Your task to perform on an android device: delete the emails in spam in the gmail app Image 0: 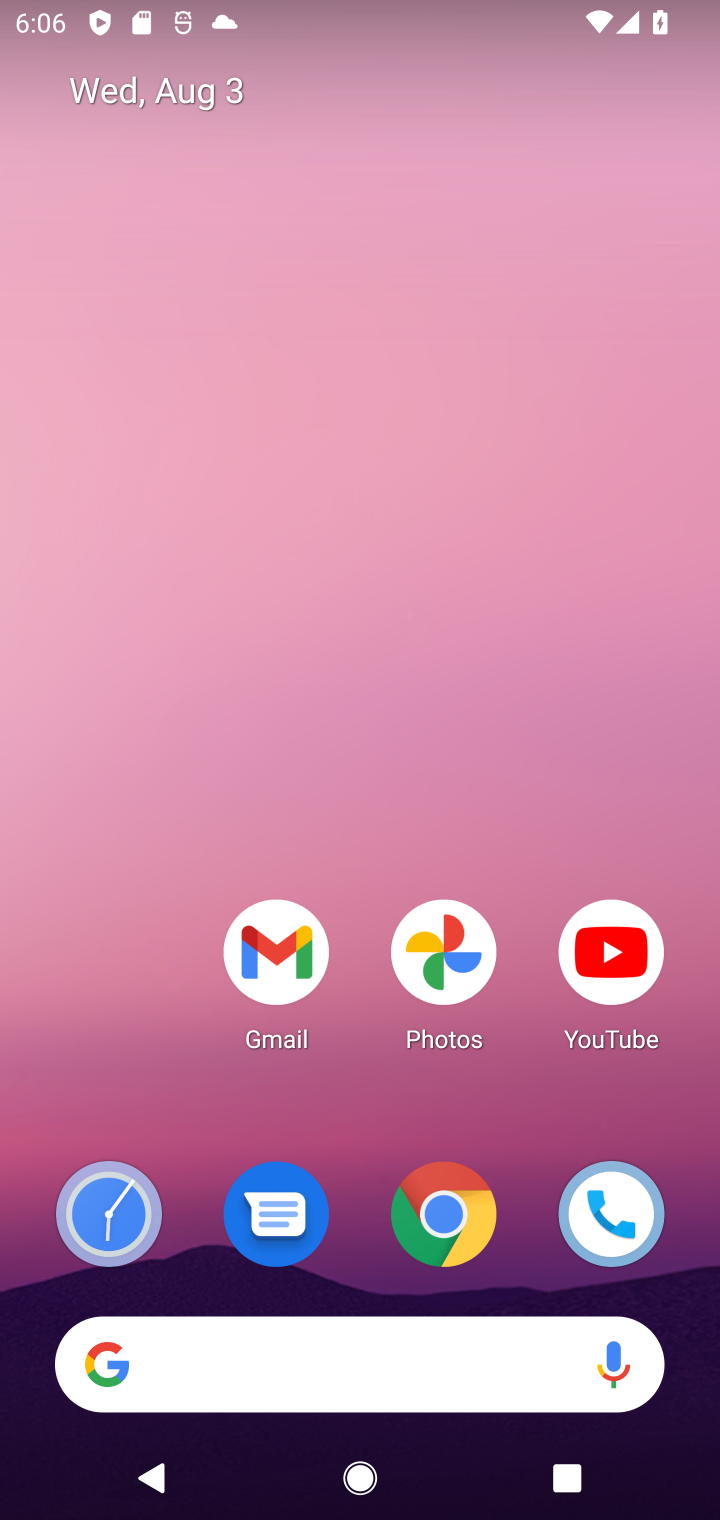
Step 0: drag from (30, 799) to (706, 109)
Your task to perform on an android device: delete the emails in spam in the gmail app Image 1: 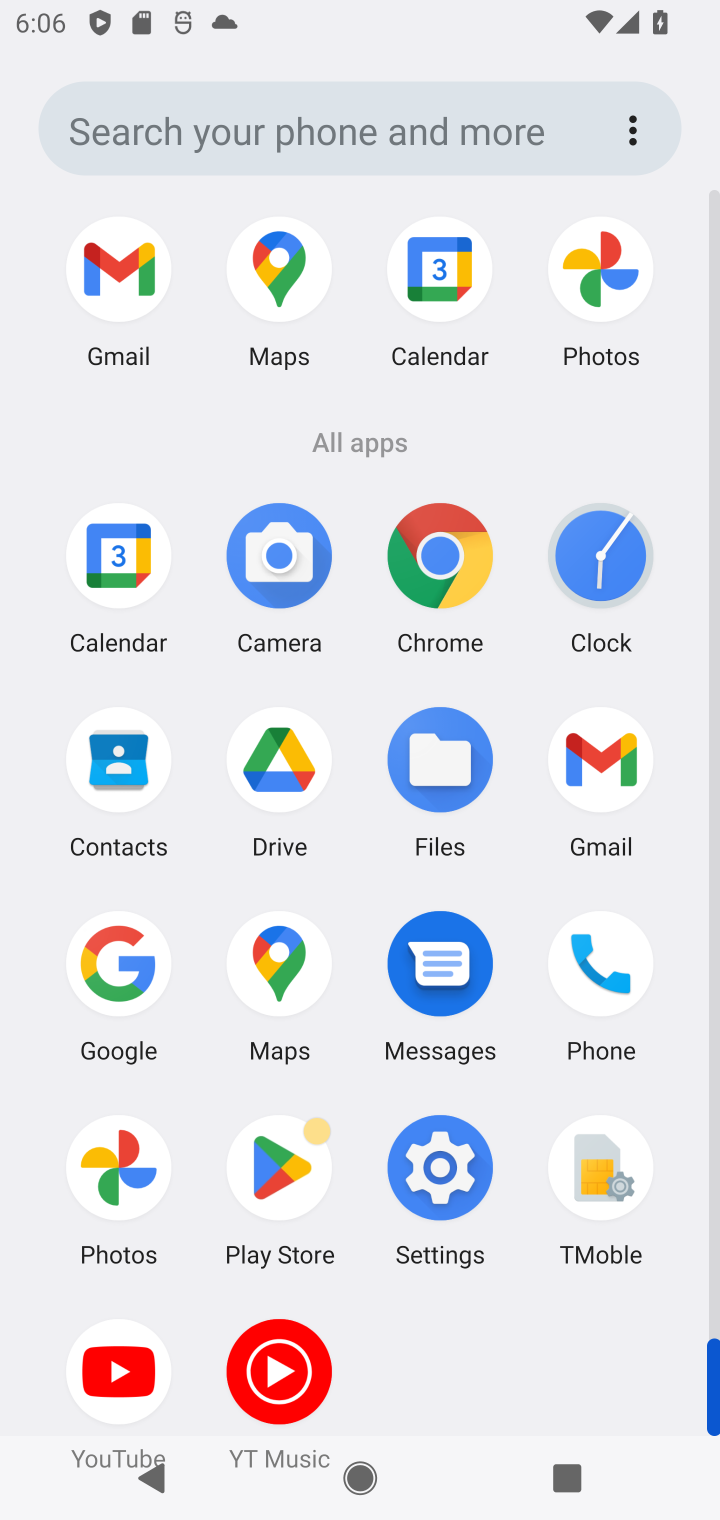
Step 1: click (74, 288)
Your task to perform on an android device: delete the emails in spam in the gmail app Image 2: 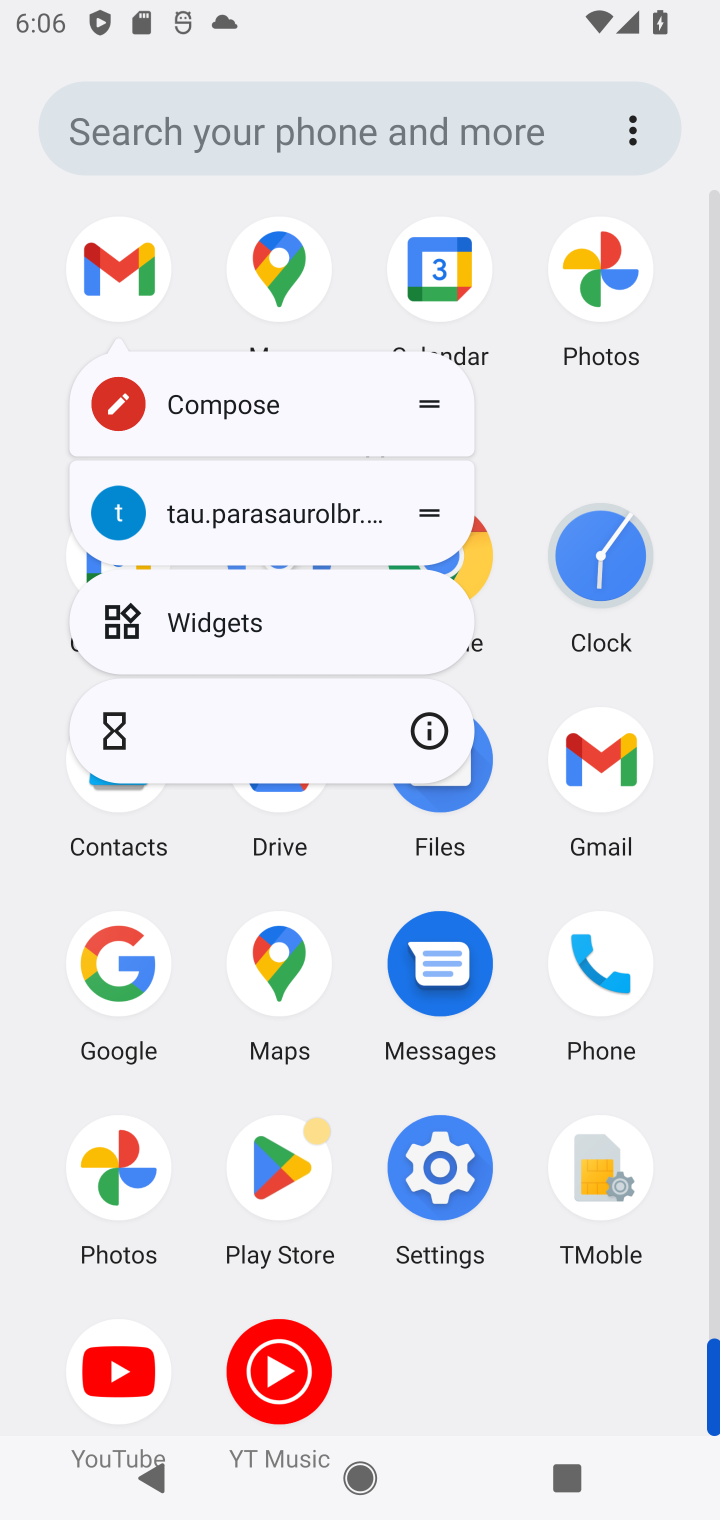
Step 2: click (122, 294)
Your task to perform on an android device: delete the emails in spam in the gmail app Image 3: 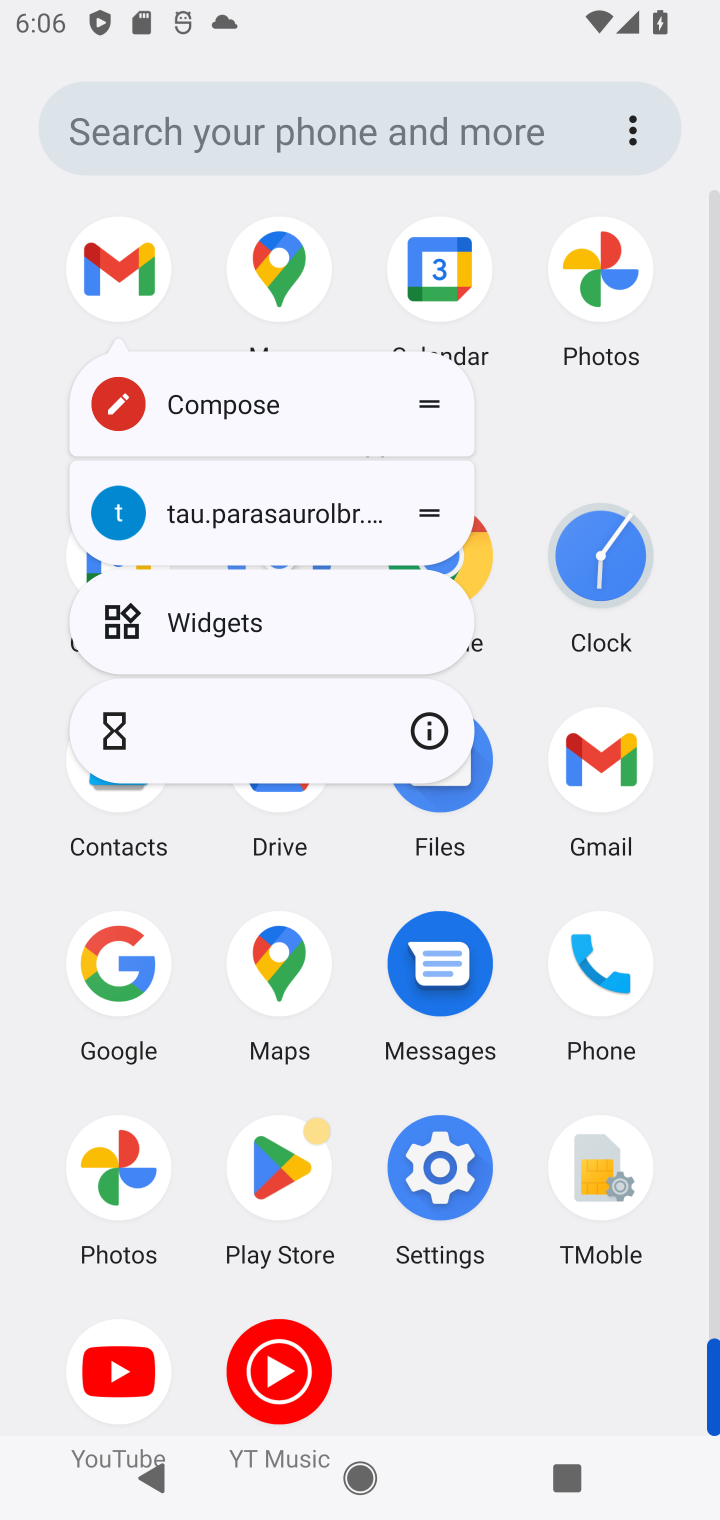
Step 3: click (122, 289)
Your task to perform on an android device: delete the emails in spam in the gmail app Image 4: 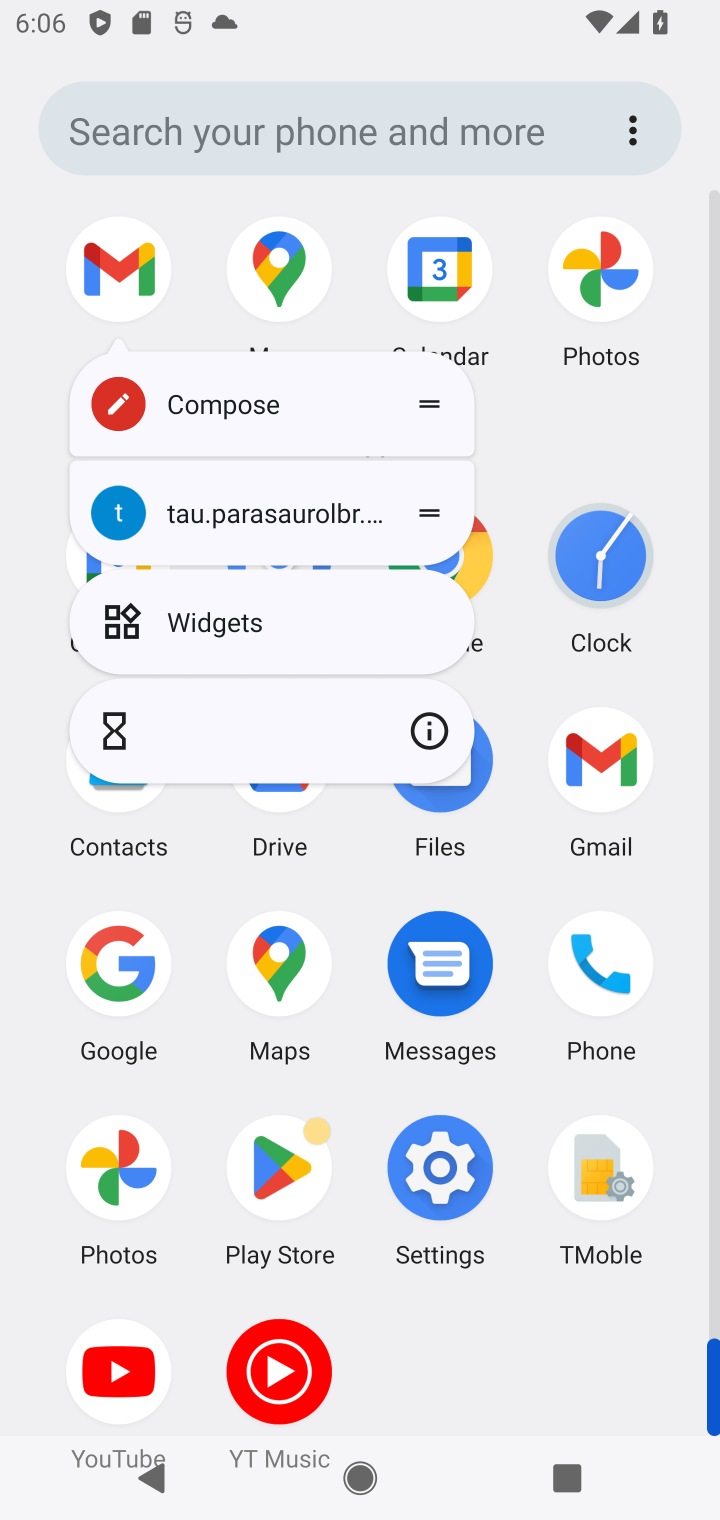
Step 4: click (119, 248)
Your task to perform on an android device: delete the emails in spam in the gmail app Image 5: 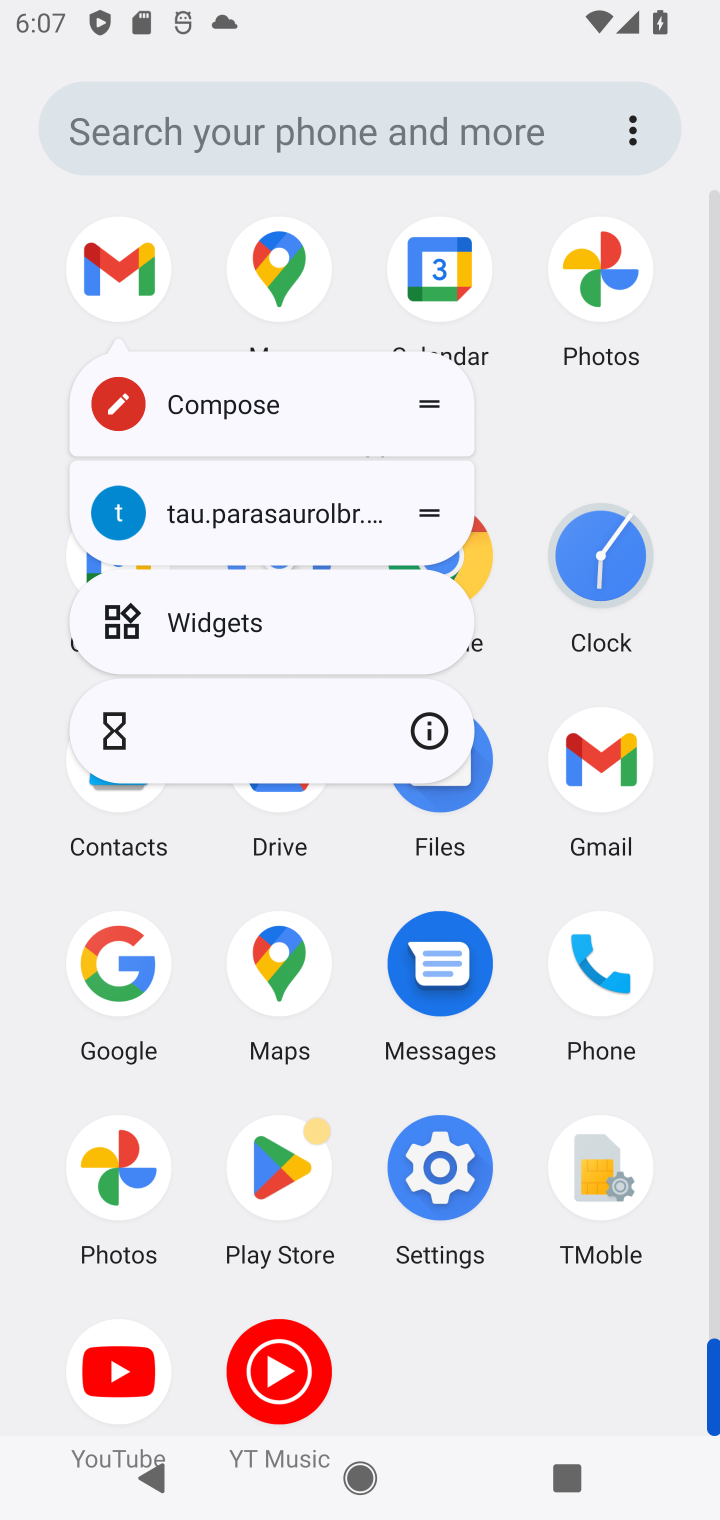
Step 5: click (115, 263)
Your task to perform on an android device: delete the emails in spam in the gmail app Image 6: 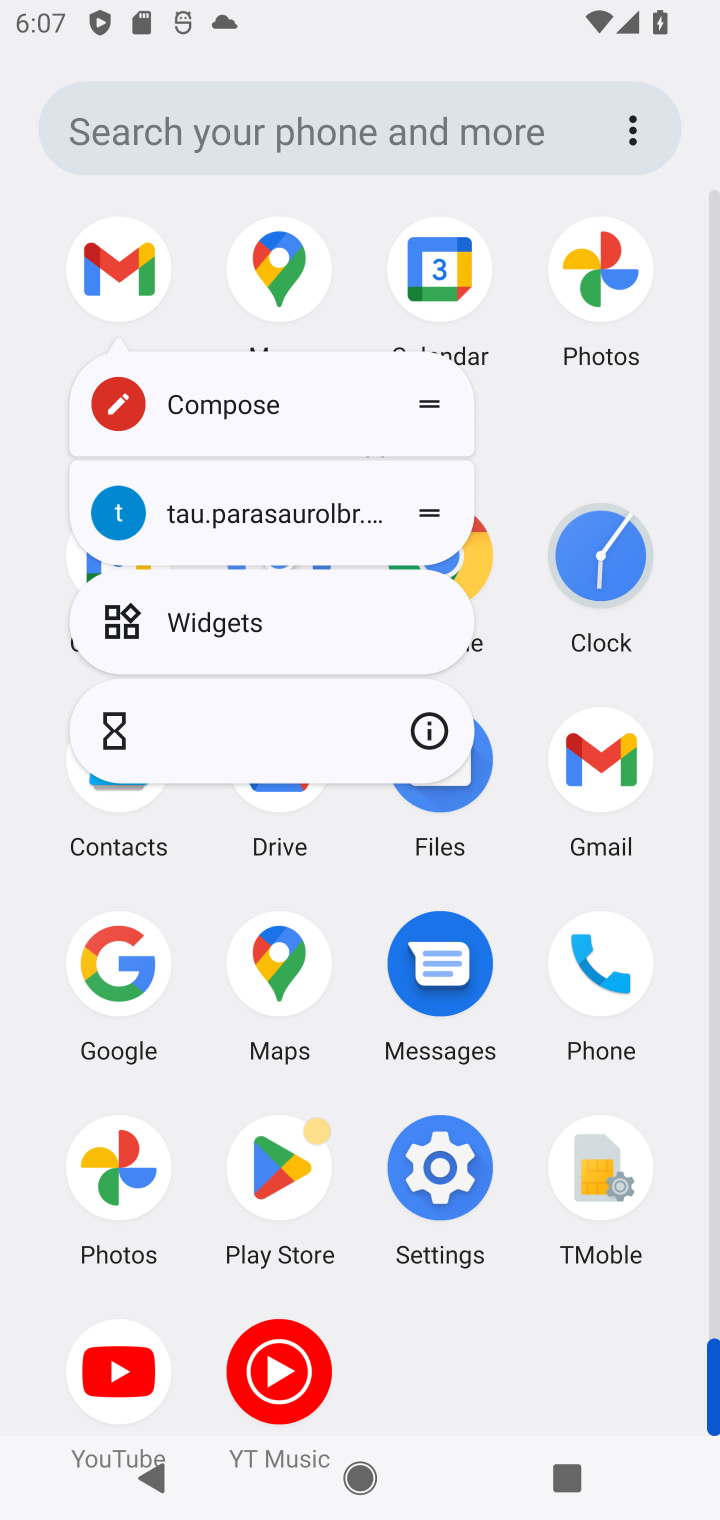
Step 6: click (106, 289)
Your task to perform on an android device: delete the emails in spam in the gmail app Image 7: 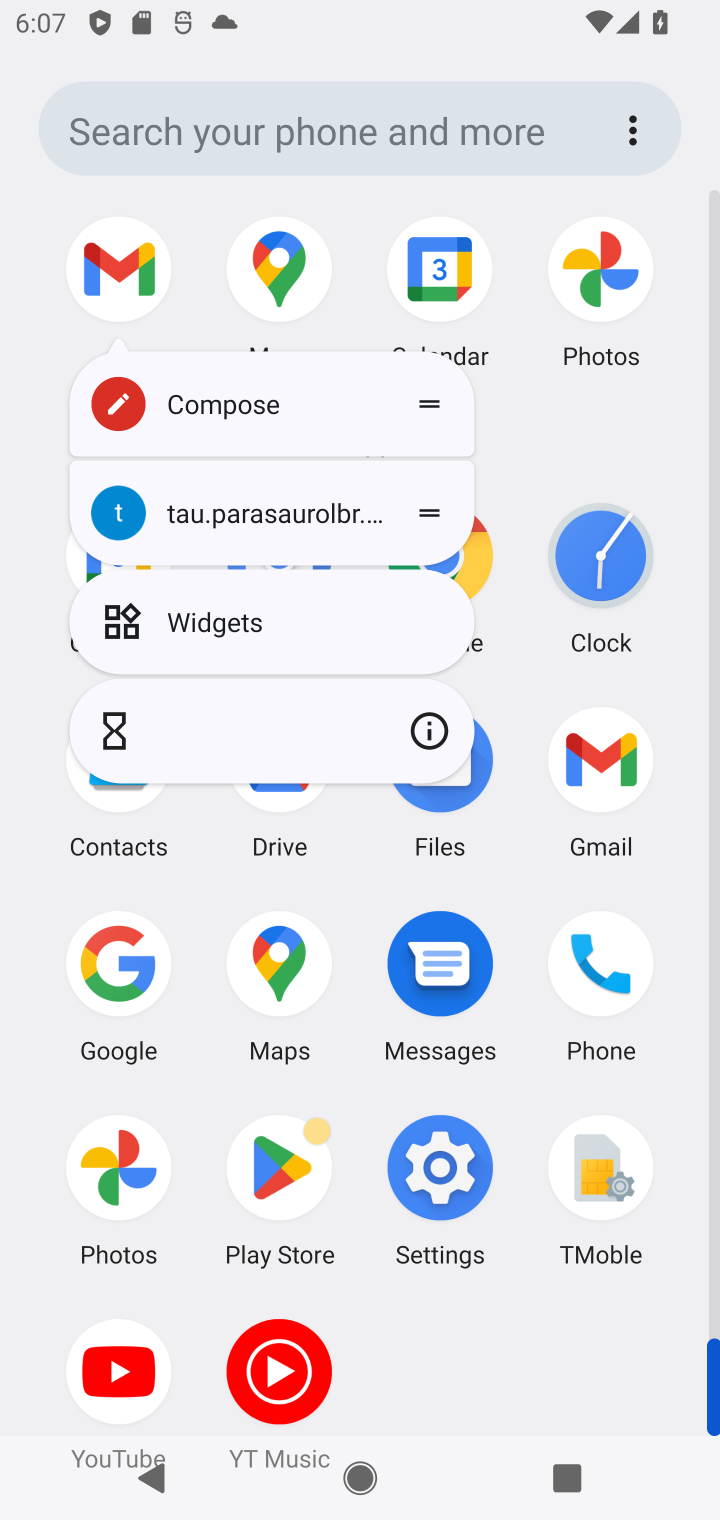
Step 7: click (104, 273)
Your task to perform on an android device: delete the emails in spam in the gmail app Image 8: 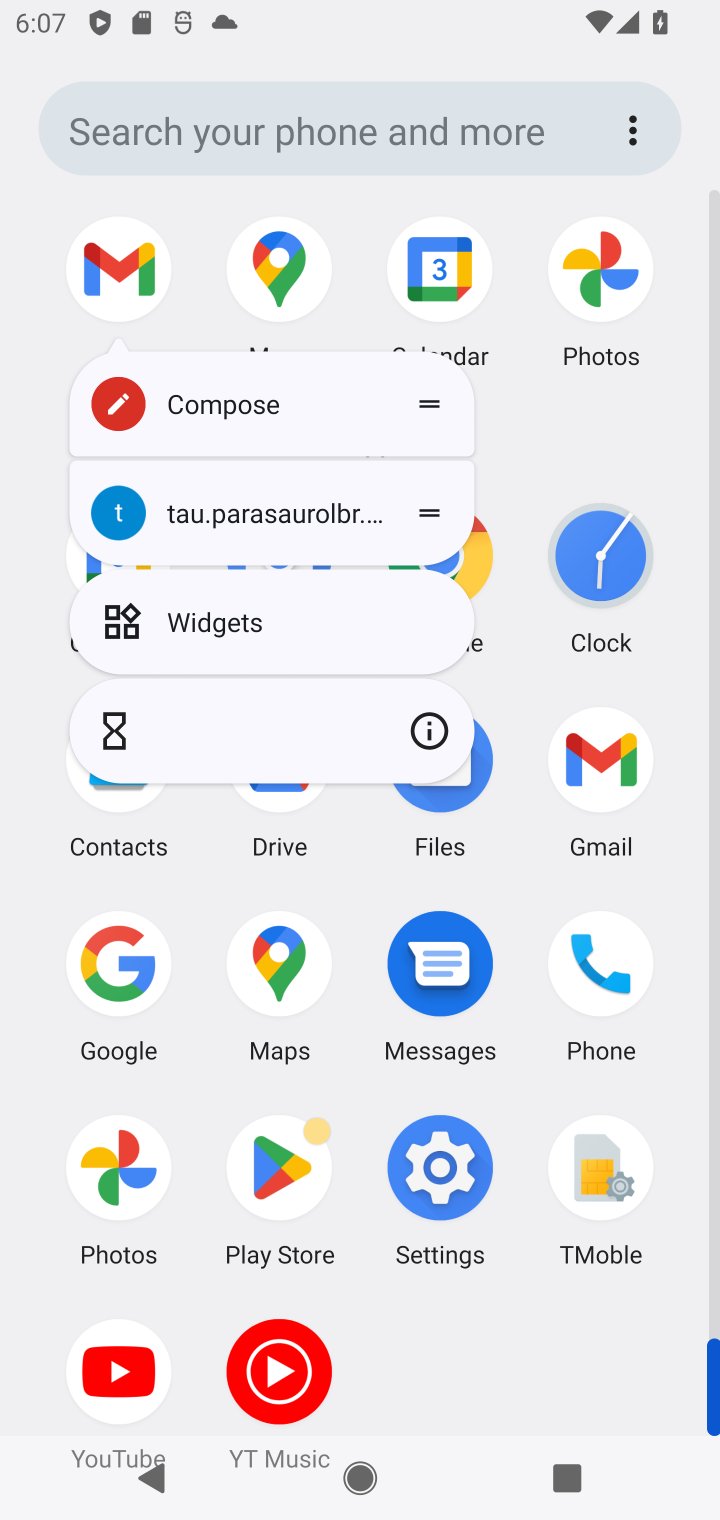
Step 8: click (104, 275)
Your task to perform on an android device: delete the emails in spam in the gmail app Image 9: 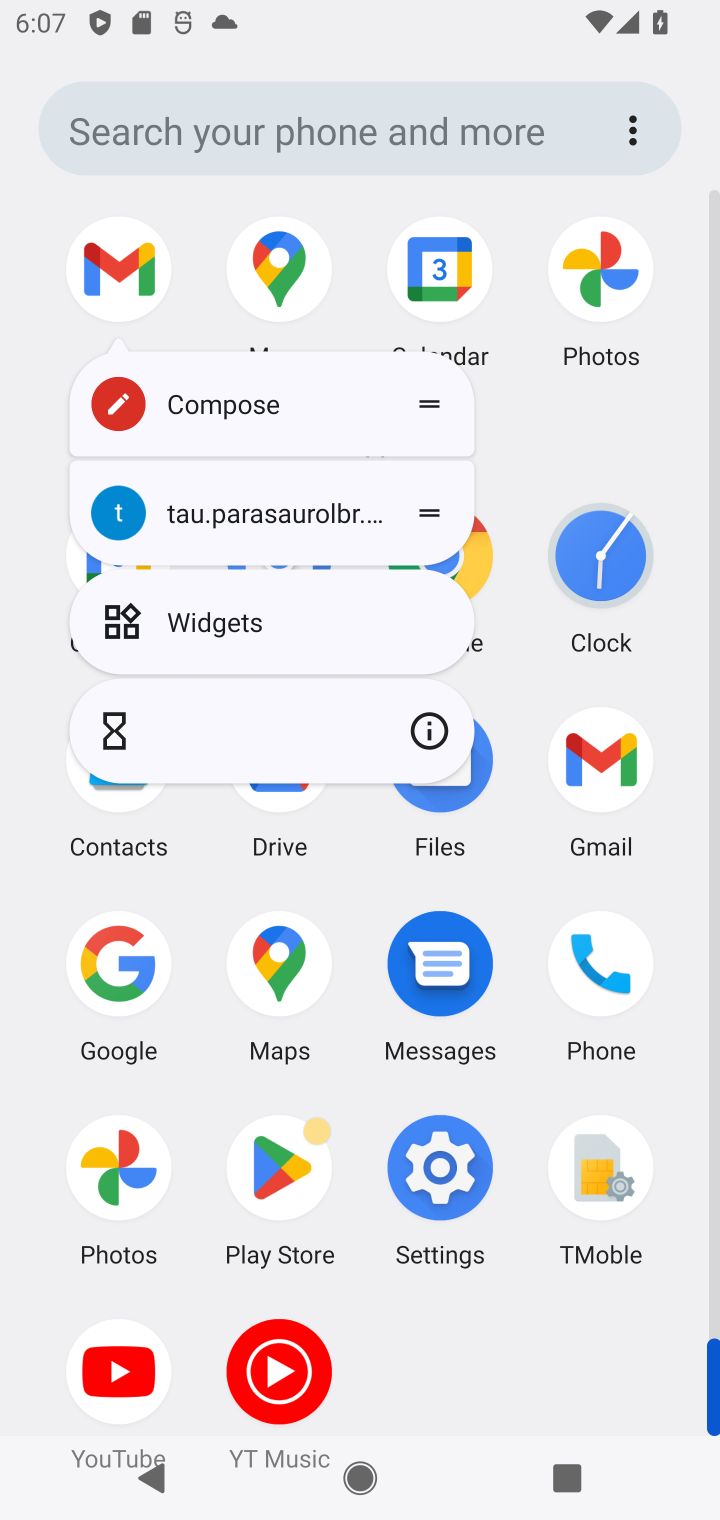
Step 9: click (104, 273)
Your task to perform on an android device: delete the emails in spam in the gmail app Image 10: 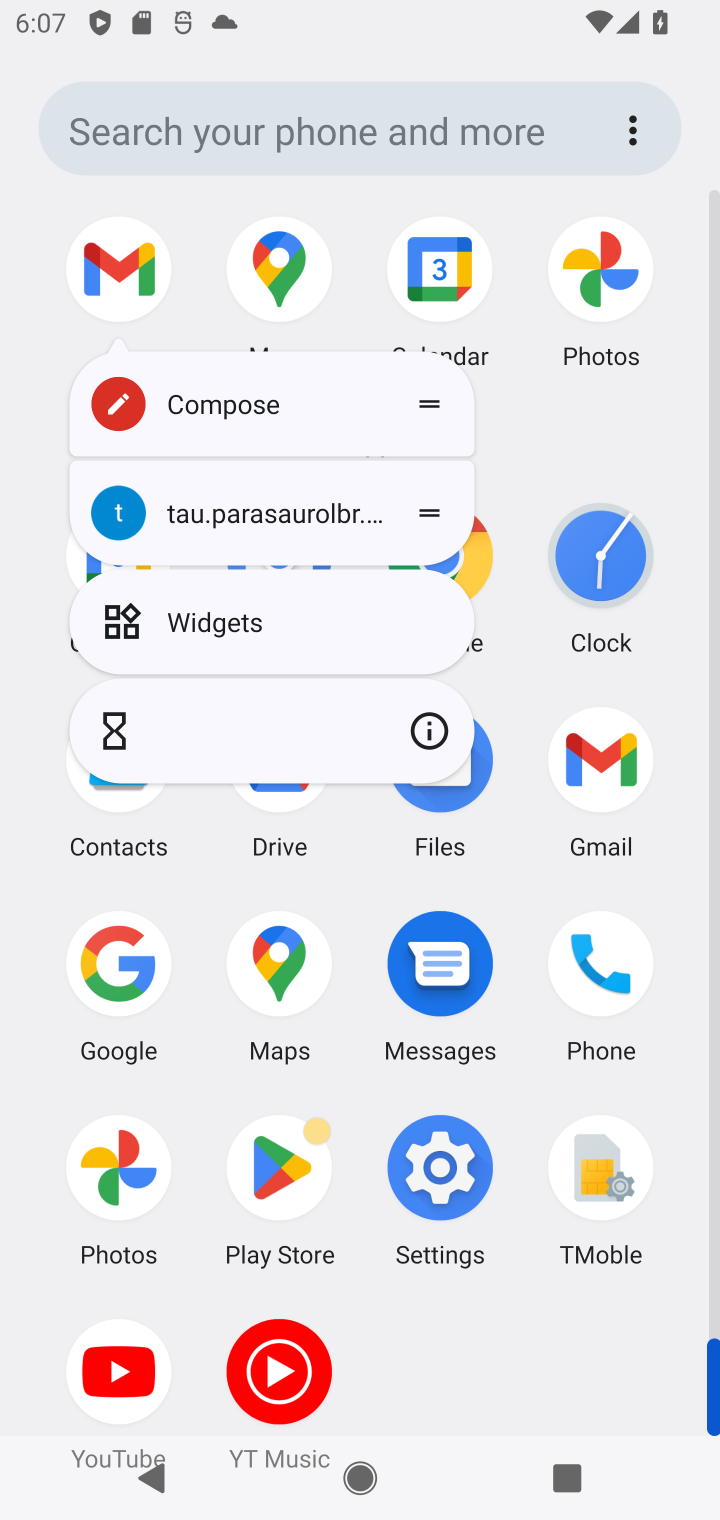
Step 10: click (108, 259)
Your task to perform on an android device: delete the emails in spam in the gmail app Image 11: 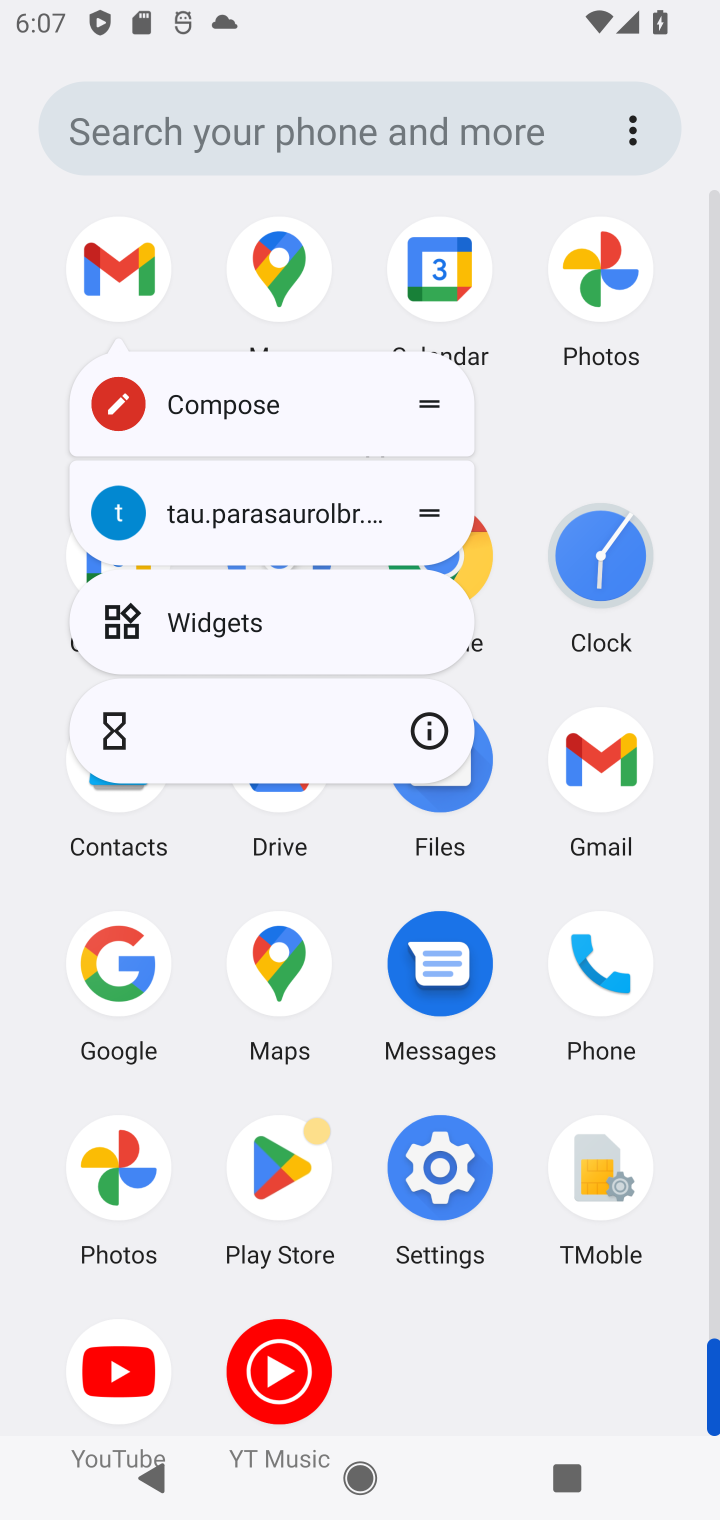
Step 11: click (124, 272)
Your task to perform on an android device: delete the emails in spam in the gmail app Image 12: 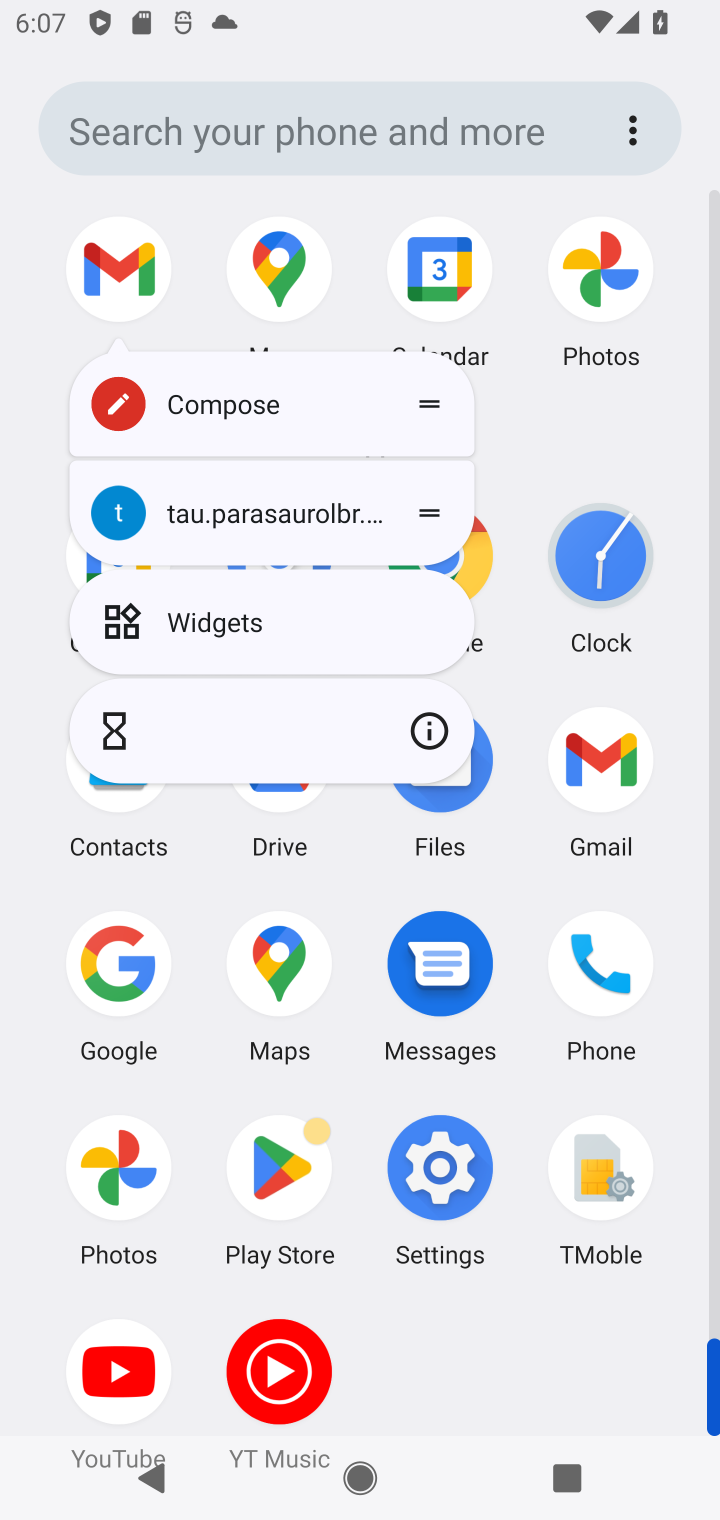
Step 12: click (120, 270)
Your task to perform on an android device: delete the emails in spam in the gmail app Image 13: 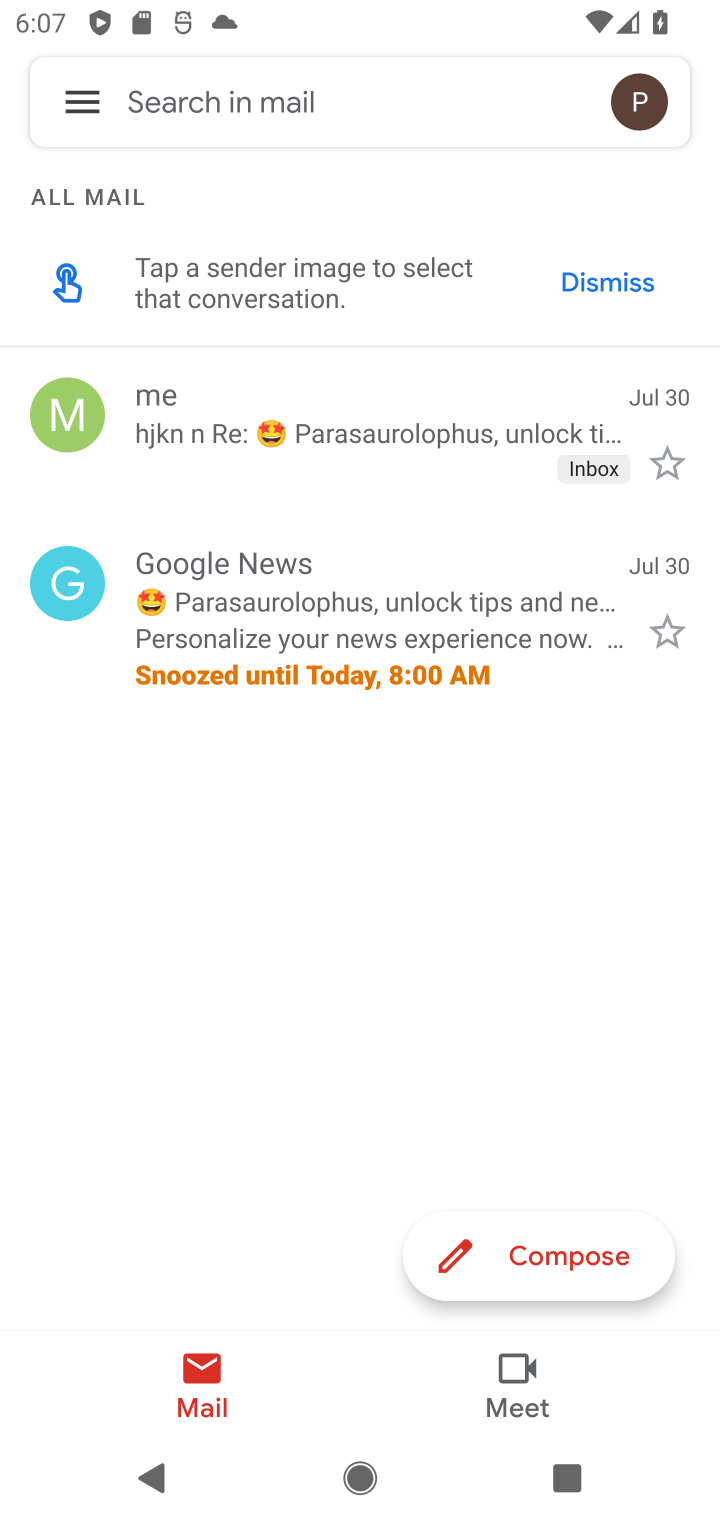
Step 13: click (226, 588)
Your task to perform on an android device: delete the emails in spam in the gmail app Image 14: 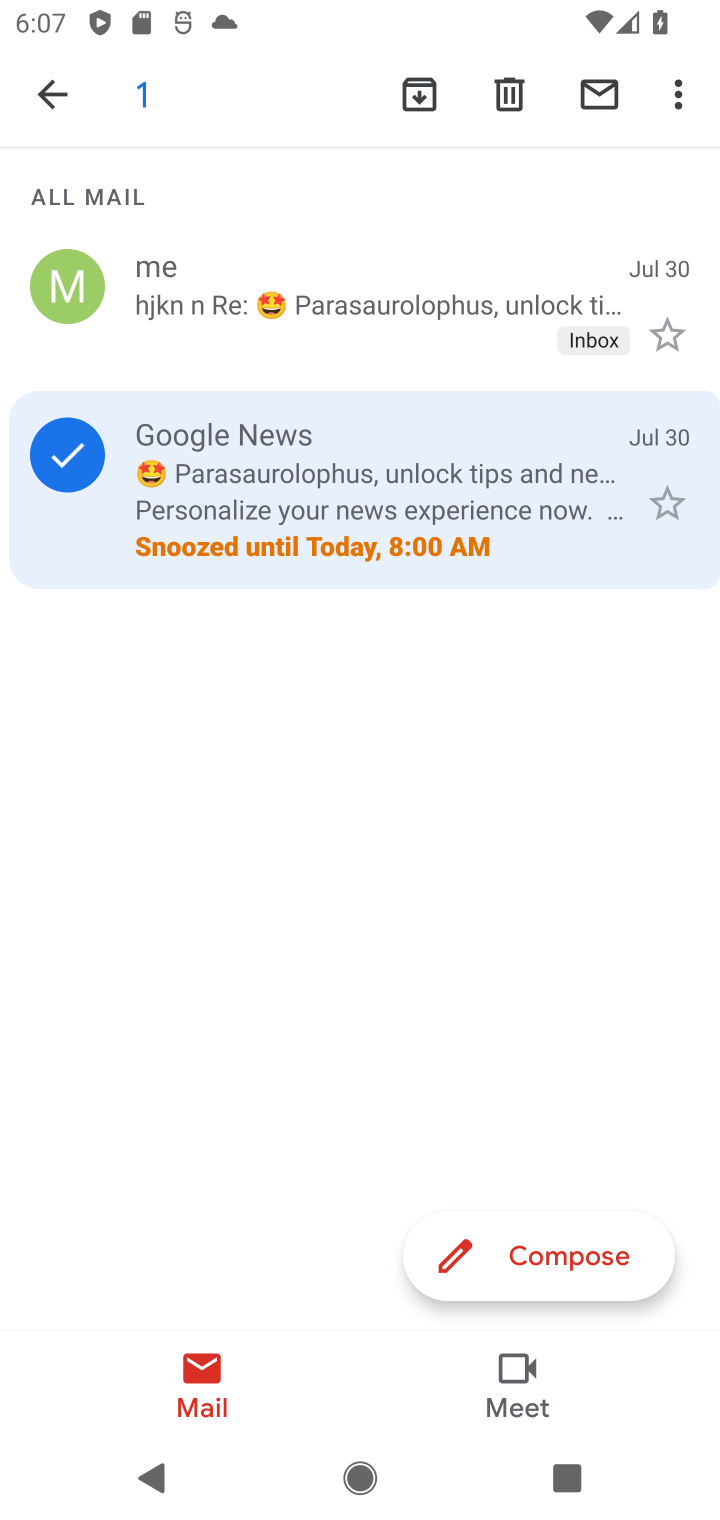
Step 14: click (72, 463)
Your task to perform on an android device: delete the emails in spam in the gmail app Image 15: 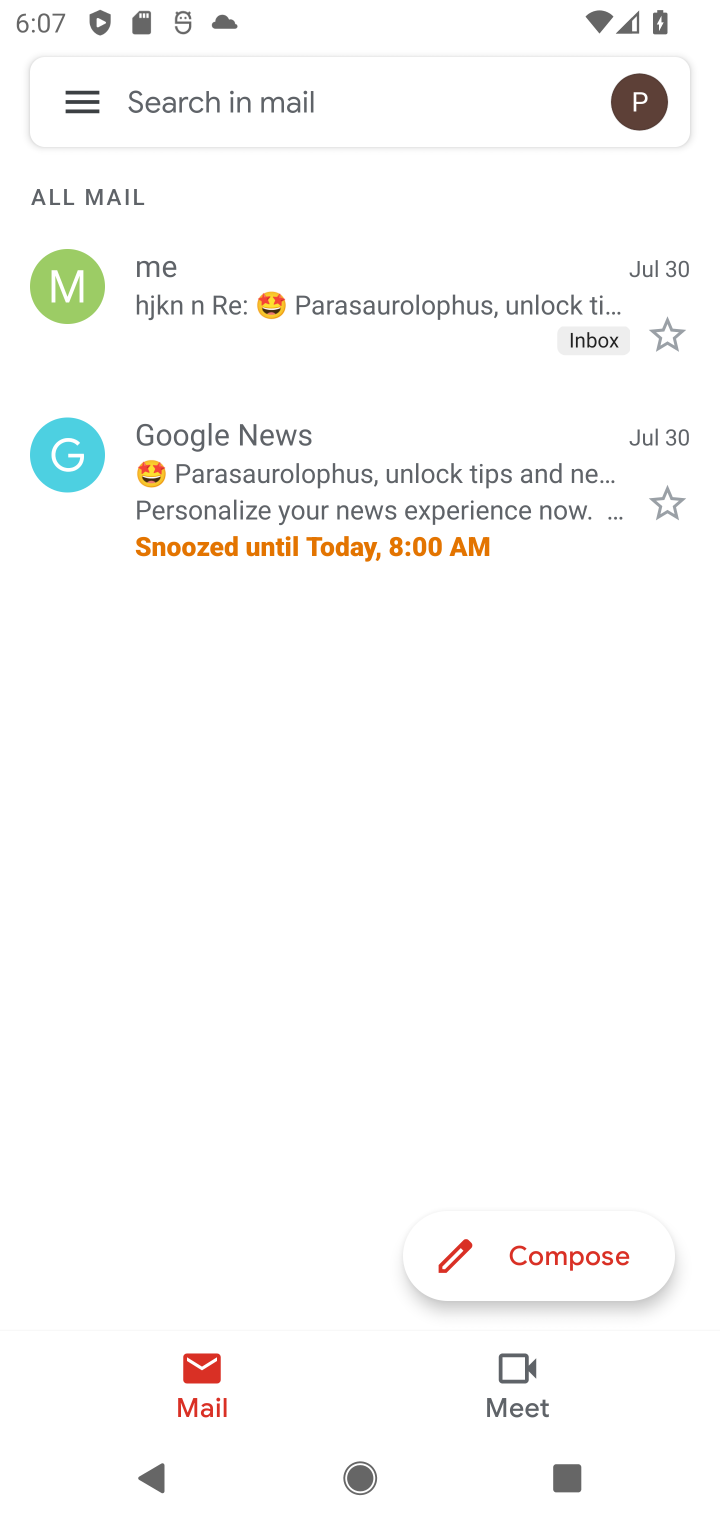
Step 15: click (359, 478)
Your task to perform on an android device: delete the emails in spam in the gmail app Image 16: 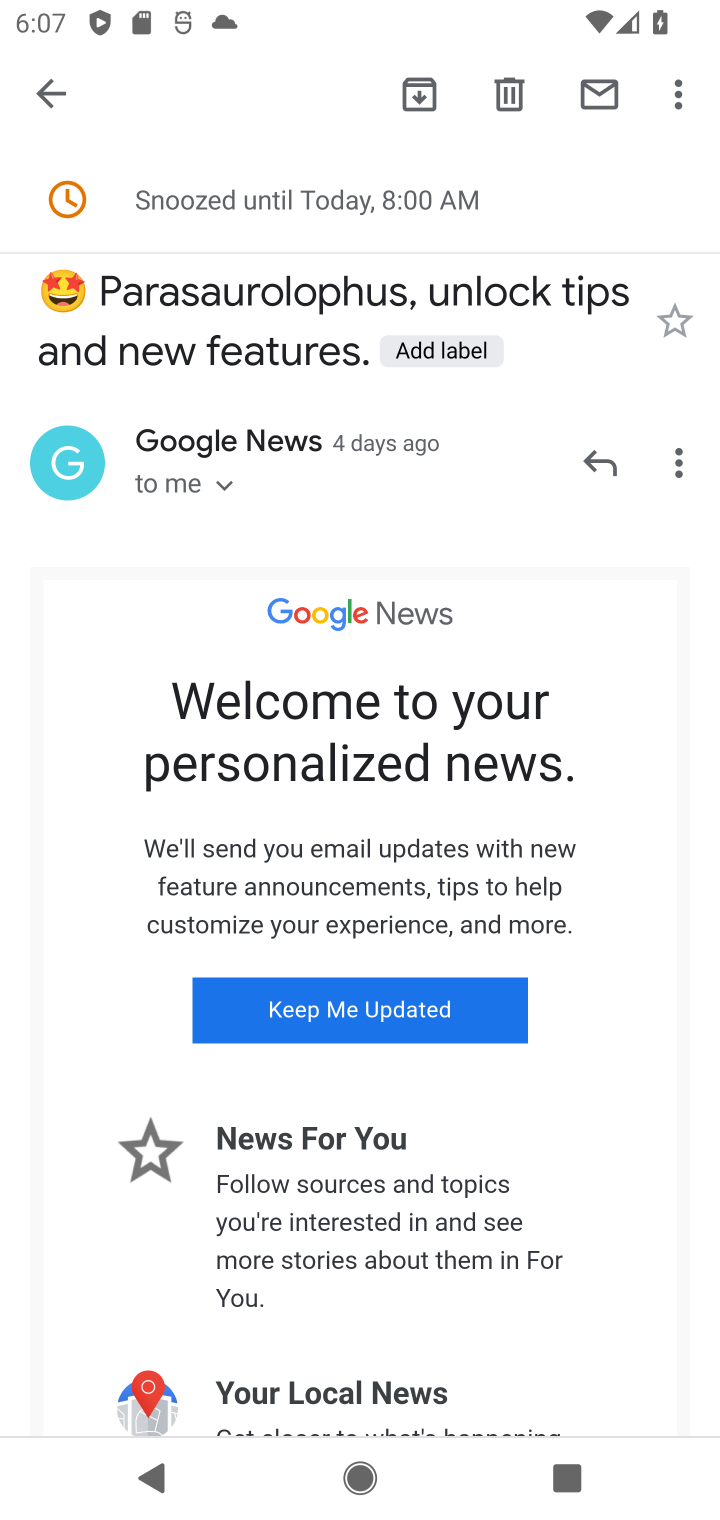
Step 16: click (510, 98)
Your task to perform on an android device: delete the emails in spam in the gmail app Image 17: 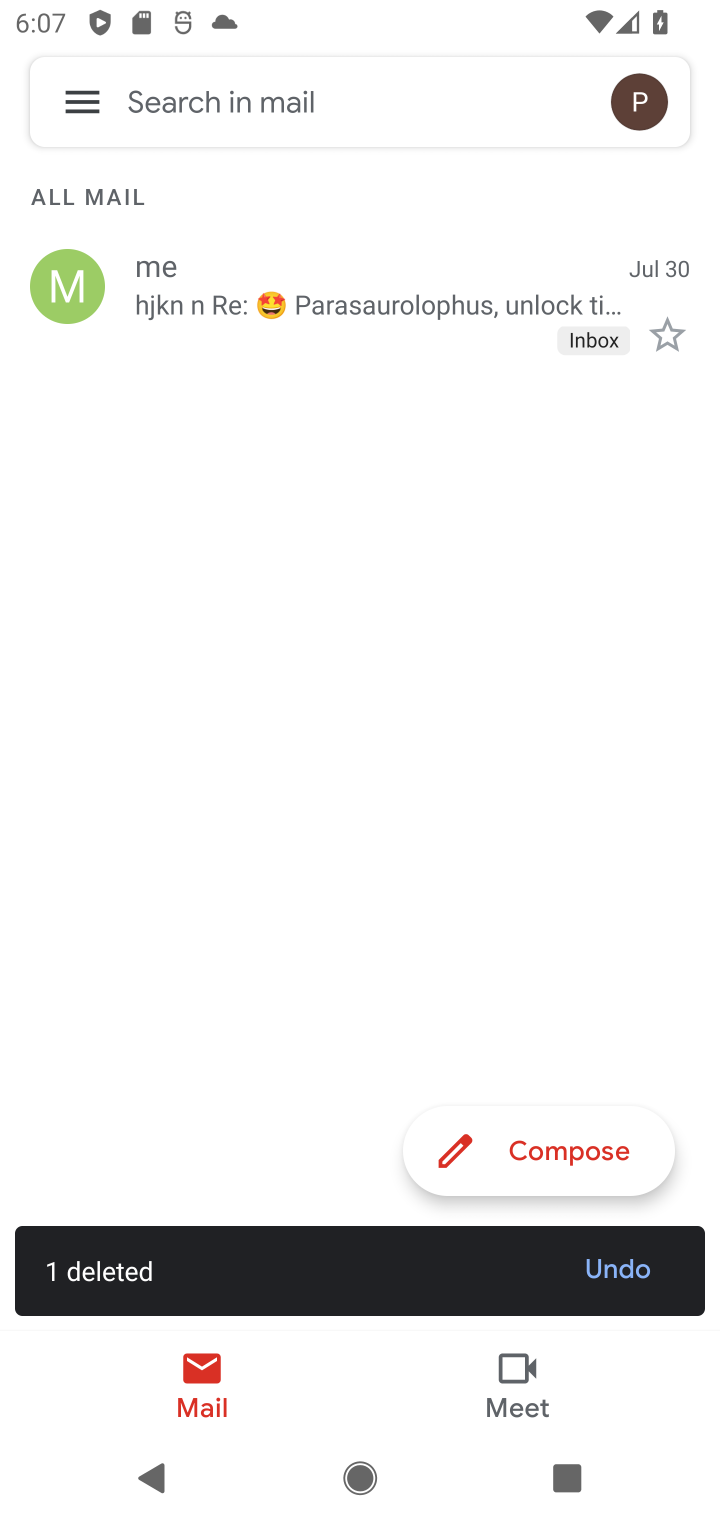
Step 17: task complete